Your task to perform on an android device: open the mobile data screen to see how much data has been used Image 0: 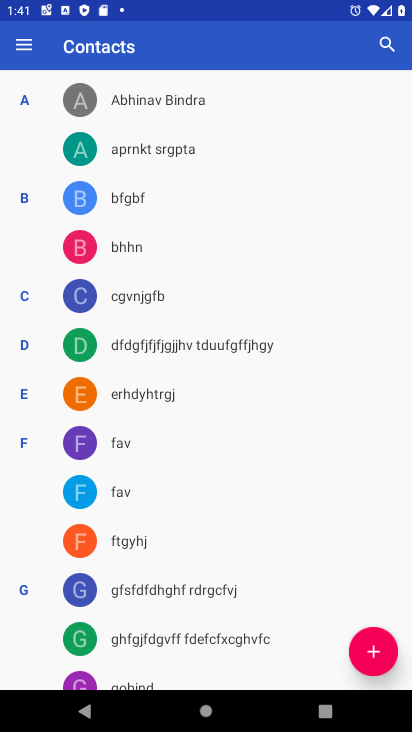
Step 0: press home button
Your task to perform on an android device: open the mobile data screen to see how much data has been used Image 1: 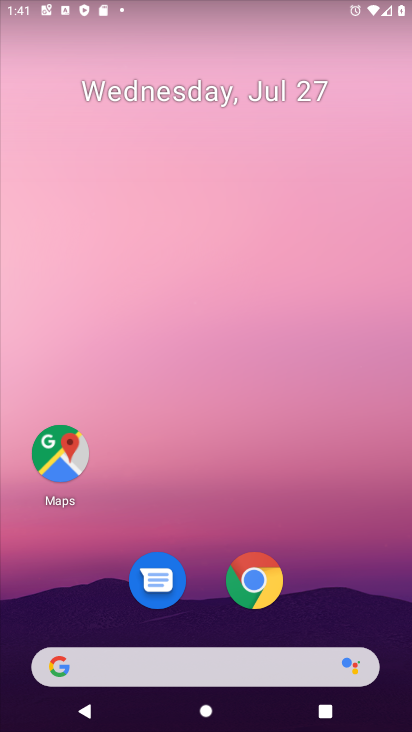
Step 1: drag from (243, 684) to (194, 151)
Your task to perform on an android device: open the mobile data screen to see how much data has been used Image 2: 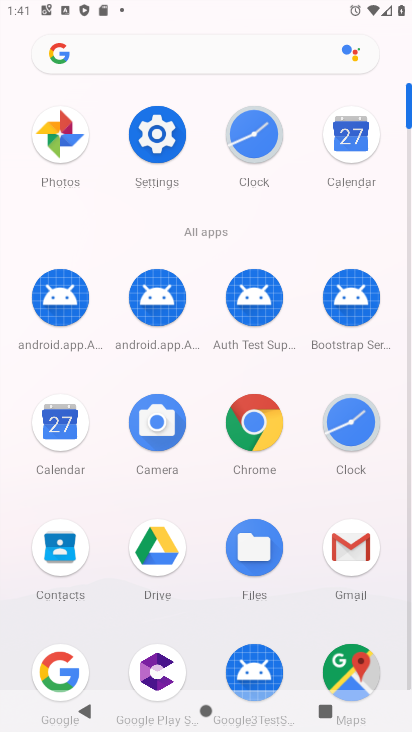
Step 2: click (150, 152)
Your task to perform on an android device: open the mobile data screen to see how much data has been used Image 3: 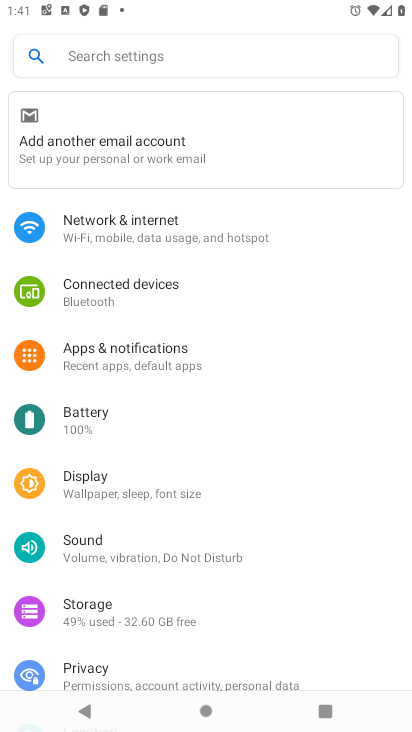
Step 3: click (153, 54)
Your task to perform on an android device: open the mobile data screen to see how much data has been used Image 4: 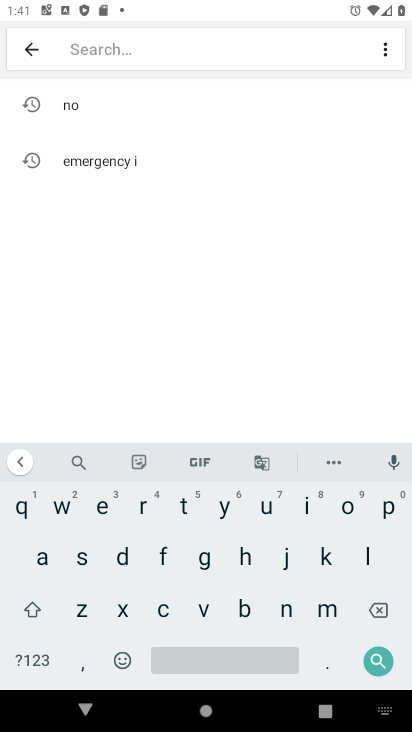
Step 4: click (39, 569)
Your task to perform on an android device: open the mobile data screen to see how much data has been used Image 5: 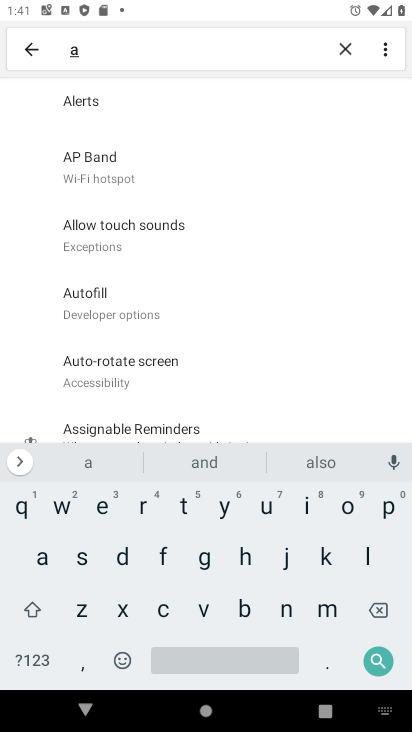
Step 5: click (377, 604)
Your task to perform on an android device: open the mobile data screen to see how much data has been used Image 6: 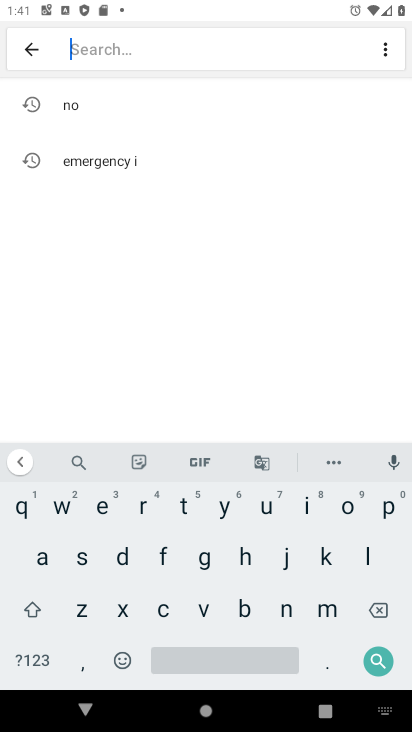
Step 6: click (118, 558)
Your task to perform on an android device: open the mobile data screen to see how much data has been used Image 7: 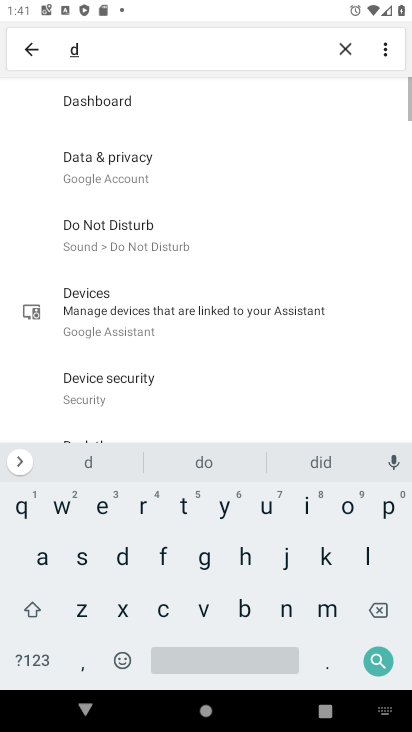
Step 7: click (35, 555)
Your task to perform on an android device: open the mobile data screen to see how much data has been used Image 8: 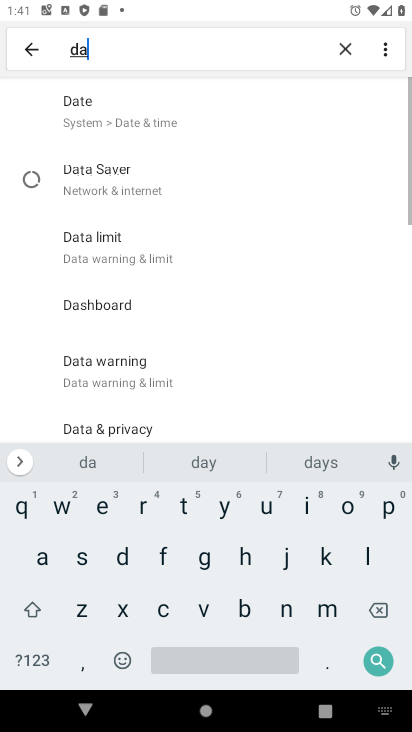
Step 8: click (182, 503)
Your task to perform on an android device: open the mobile data screen to see how much data has been used Image 9: 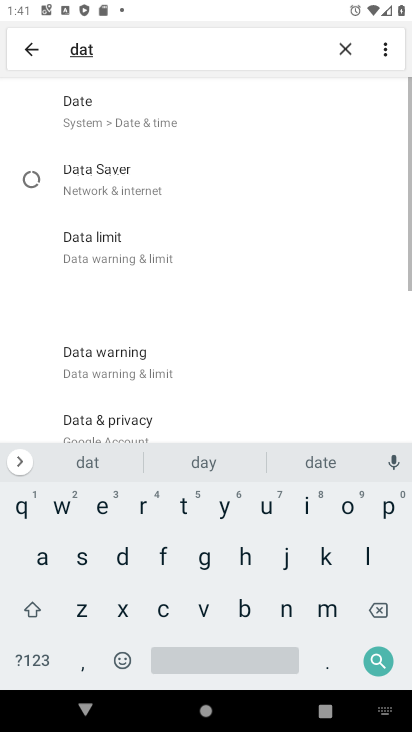
Step 9: click (35, 556)
Your task to perform on an android device: open the mobile data screen to see how much data has been used Image 10: 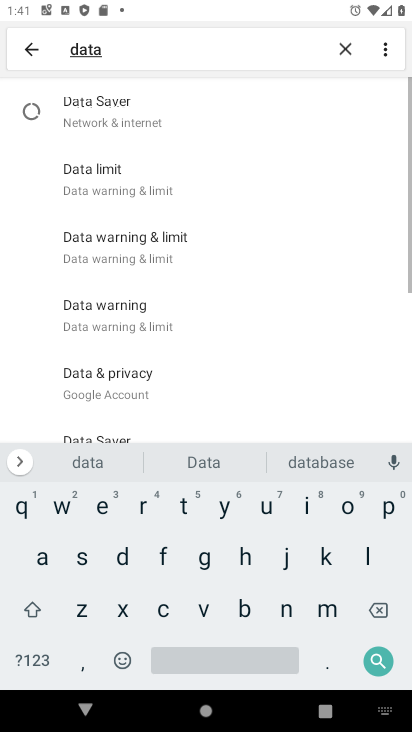
Step 10: click (211, 663)
Your task to perform on an android device: open the mobile data screen to see how much data has been used Image 11: 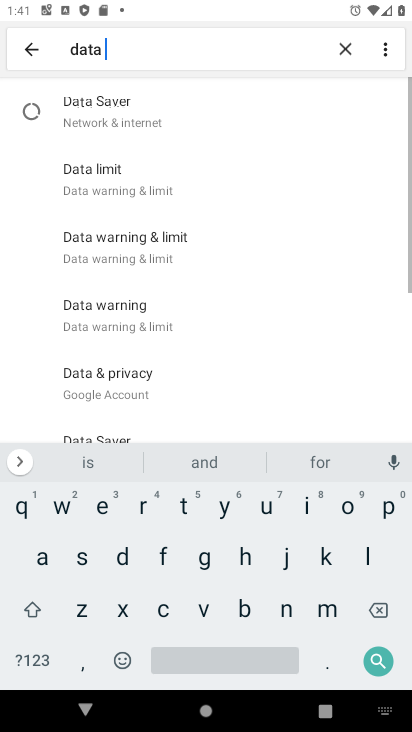
Step 11: click (264, 507)
Your task to perform on an android device: open the mobile data screen to see how much data has been used Image 12: 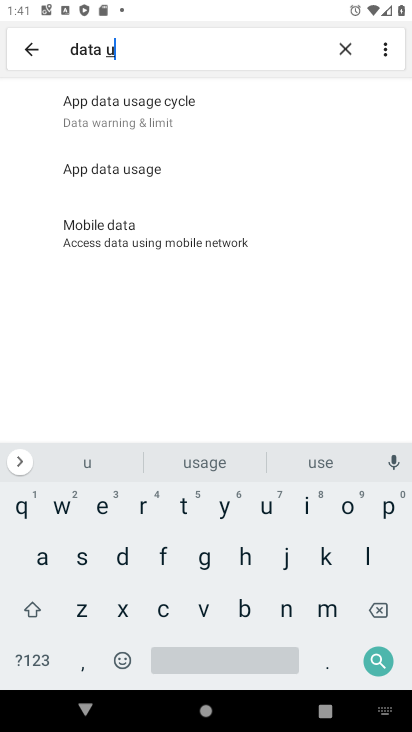
Step 12: click (126, 171)
Your task to perform on an android device: open the mobile data screen to see how much data has been used Image 13: 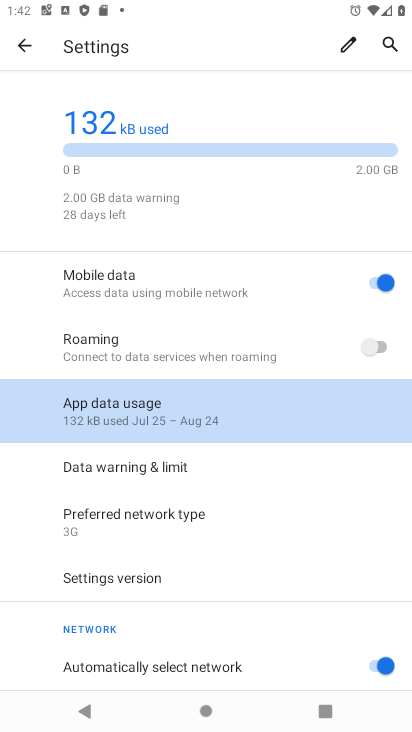
Step 13: click (149, 416)
Your task to perform on an android device: open the mobile data screen to see how much data has been used Image 14: 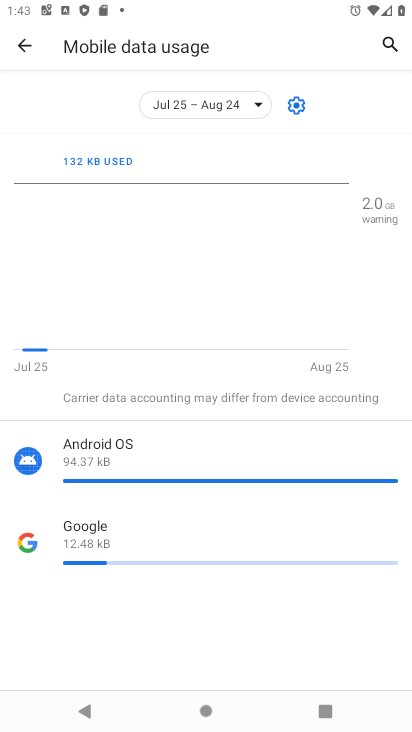
Step 14: task complete